Your task to perform on an android device: Open Yahoo.com Image 0: 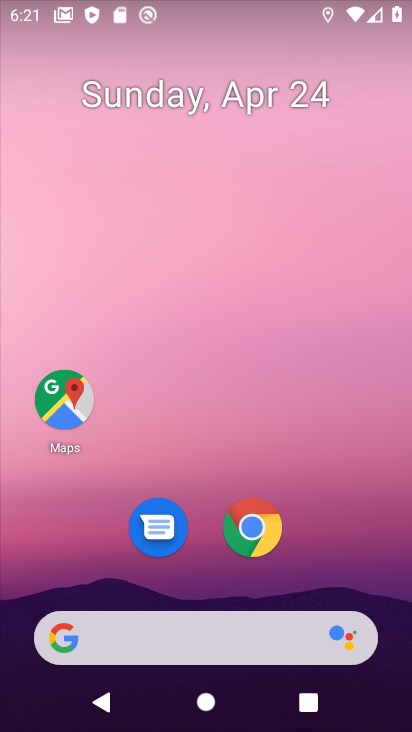
Step 0: click (250, 532)
Your task to perform on an android device: Open Yahoo.com Image 1: 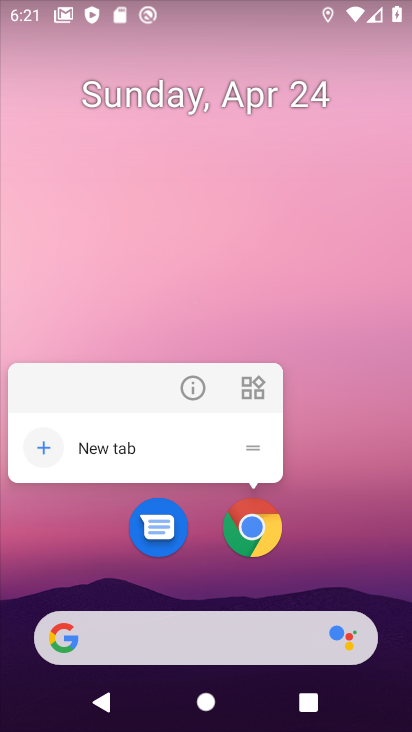
Step 1: click (237, 532)
Your task to perform on an android device: Open Yahoo.com Image 2: 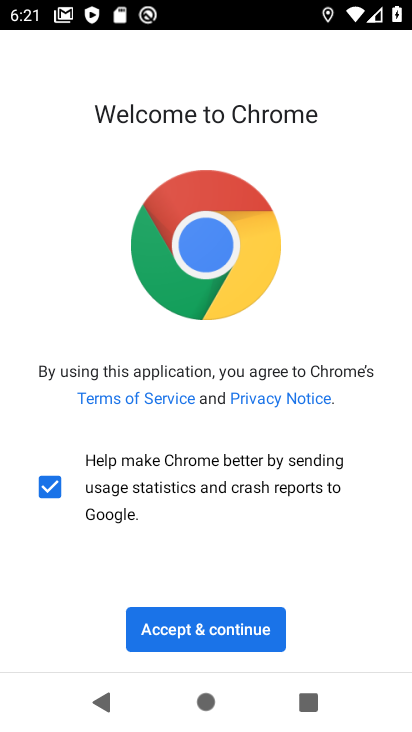
Step 2: click (173, 641)
Your task to perform on an android device: Open Yahoo.com Image 3: 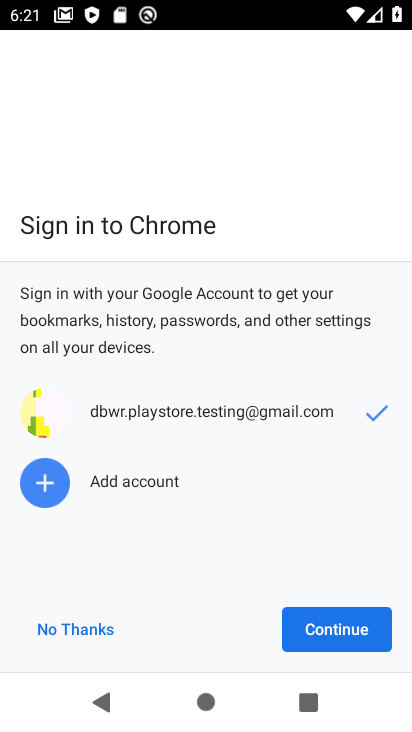
Step 3: click (319, 644)
Your task to perform on an android device: Open Yahoo.com Image 4: 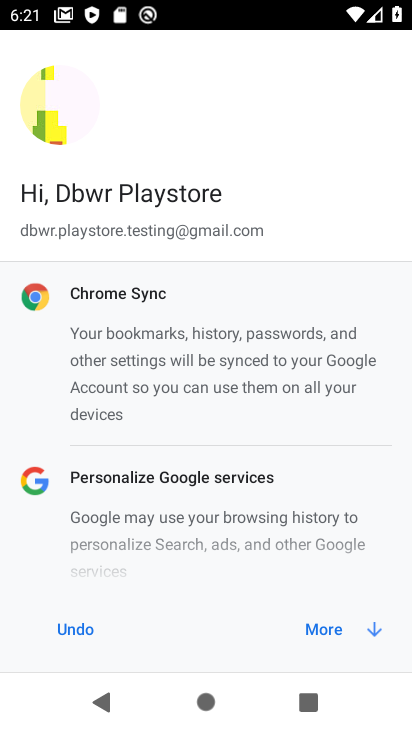
Step 4: click (342, 630)
Your task to perform on an android device: Open Yahoo.com Image 5: 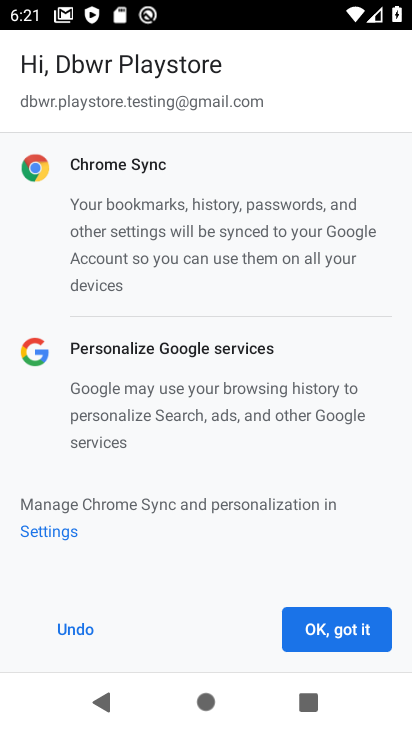
Step 5: click (332, 633)
Your task to perform on an android device: Open Yahoo.com Image 6: 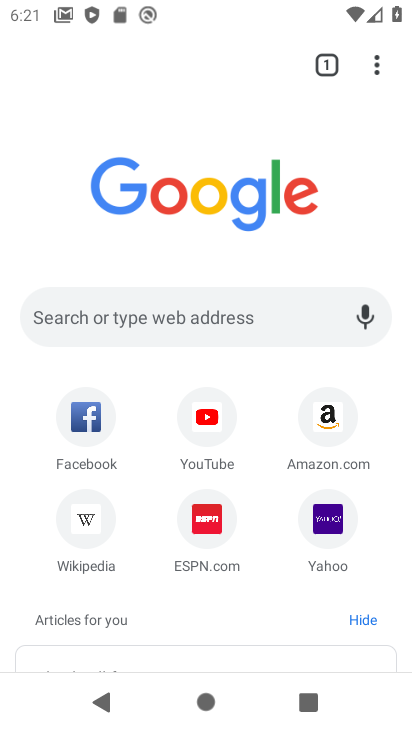
Step 6: click (316, 529)
Your task to perform on an android device: Open Yahoo.com Image 7: 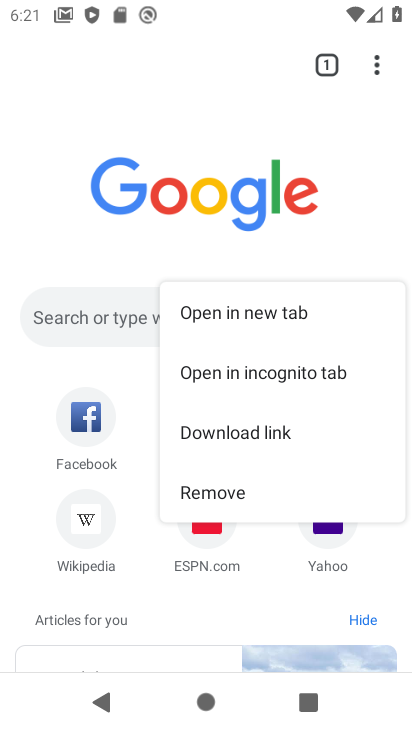
Step 7: click (329, 539)
Your task to perform on an android device: Open Yahoo.com Image 8: 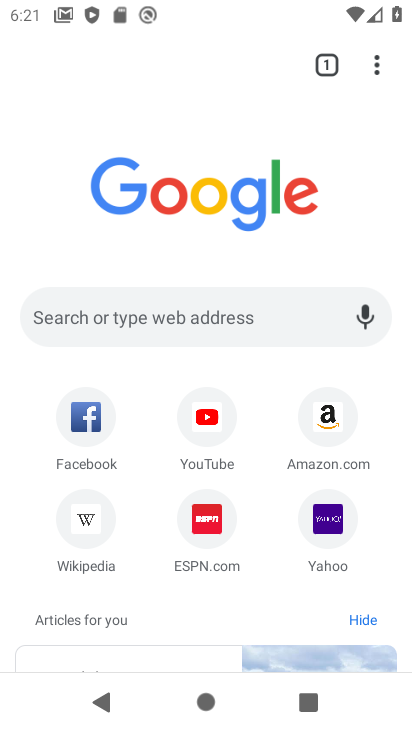
Step 8: click (327, 525)
Your task to perform on an android device: Open Yahoo.com Image 9: 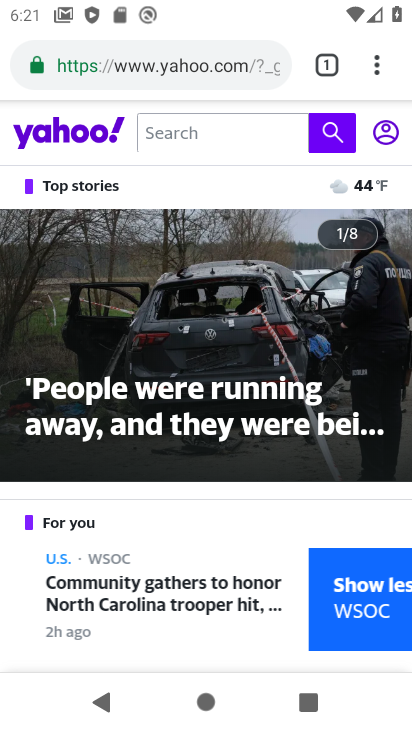
Step 9: task complete